Your task to perform on an android device: toggle show notifications on the lock screen Image 0: 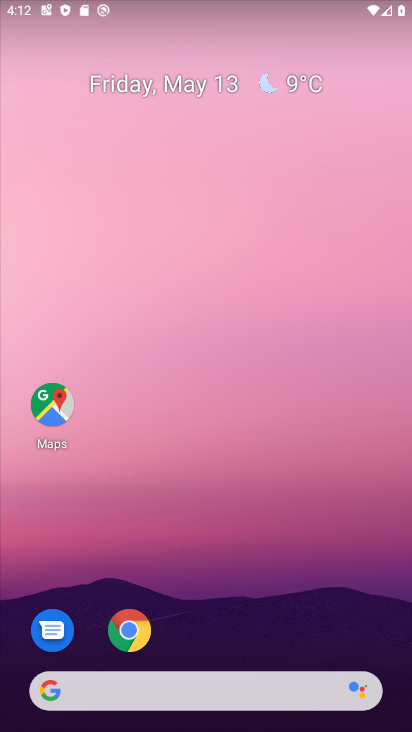
Step 0: drag from (193, 518) to (167, 104)
Your task to perform on an android device: toggle show notifications on the lock screen Image 1: 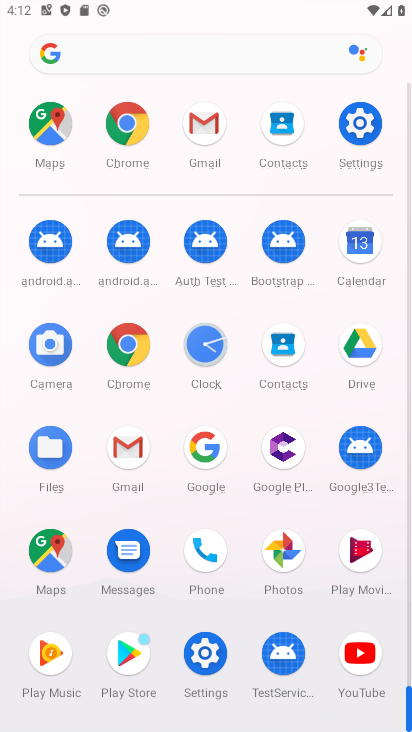
Step 1: drag from (9, 540) to (15, 315)
Your task to perform on an android device: toggle show notifications on the lock screen Image 2: 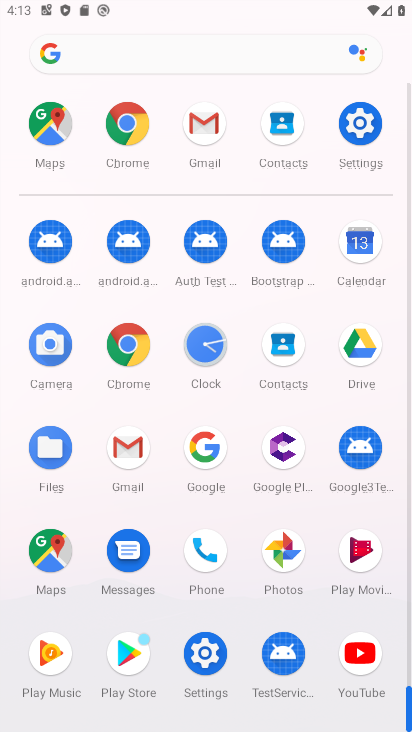
Step 2: click (203, 650)
Your task to perform on an android device: toggle show notifications on the lock screen Image 3: 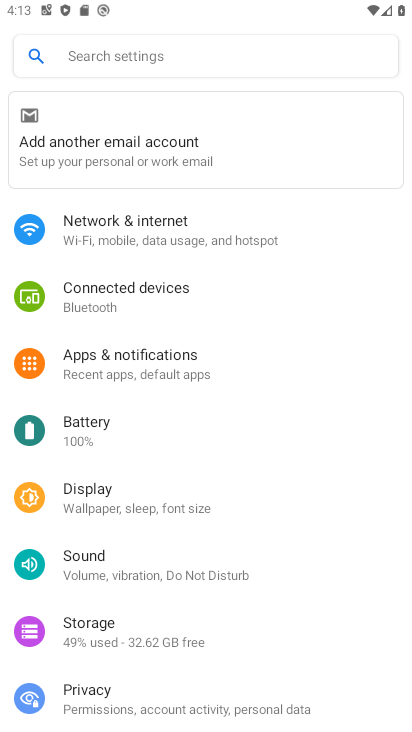
Step 3: click (175, 360)
Your task to perform on an android device: toggle show notifications on the lock screen Image 4: 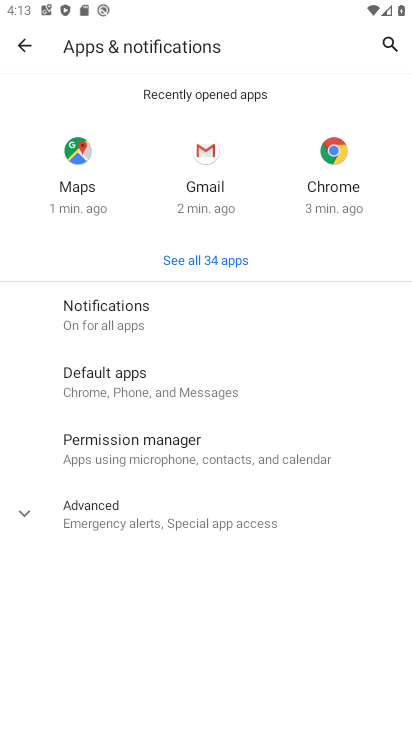
Step 4: click (170, 324)
Your task to perform on an android device: toggle show notifications on the lock screen Image 5: 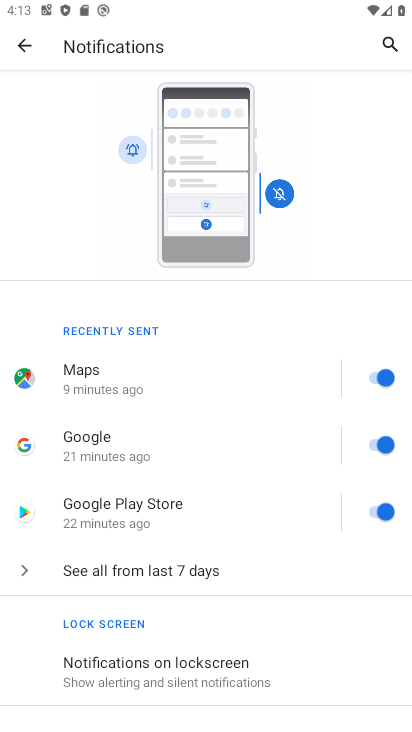
Step 5: drag from (250, 542) to (259, 222)
Your task to perform on an android device: toggle show notifications on the lock screen Image 6: 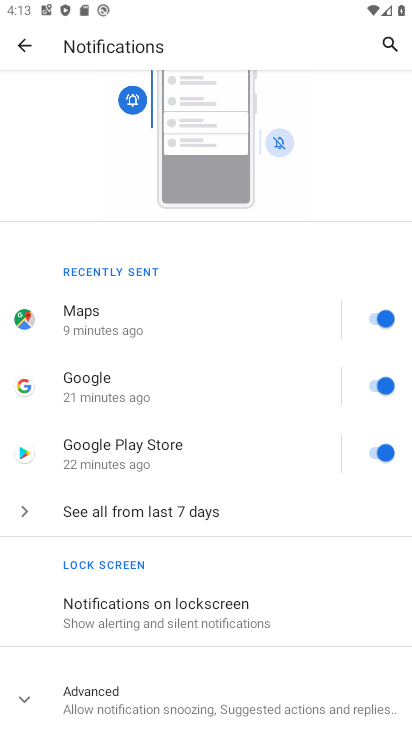
Step 6: click (156, 607)
Your task to perform on an android device: toggle show notifications on the lock screen Image 7: 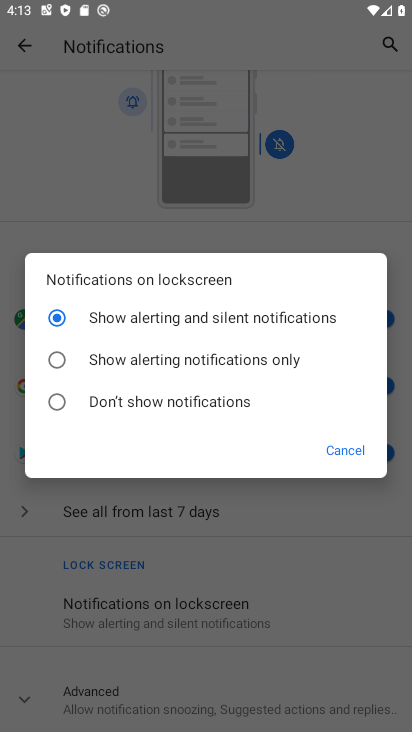
Step 7: click (155, 319)
Your task to perform on an android device: toggle show notifications on the lock screen Image 8: 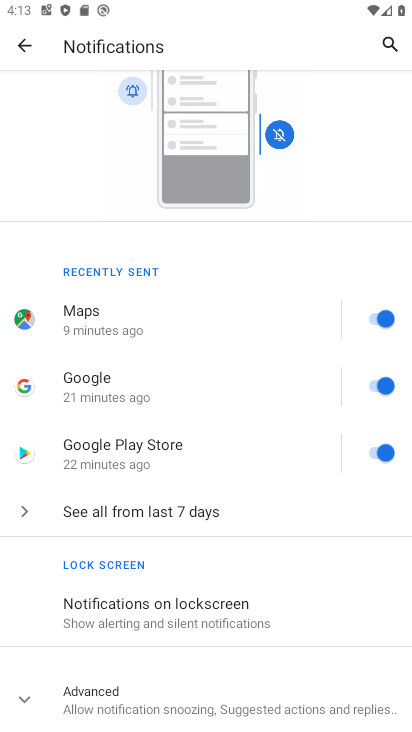
Step 8: task complete